Your task to perform on an android device: turn on translation in the chrome app Image 0: 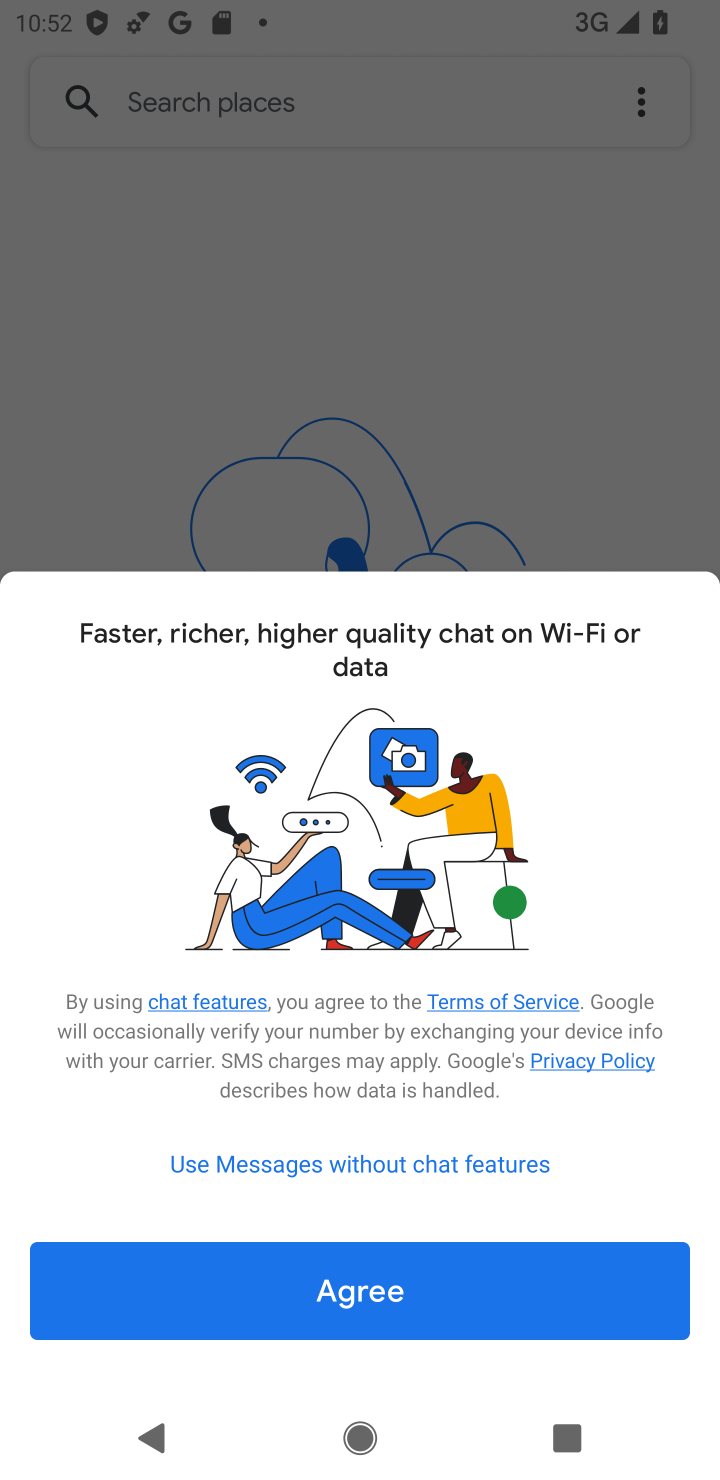
Step 0: press home button
Your task to perform on an android device: turn on translation in the chrome app Image 1: 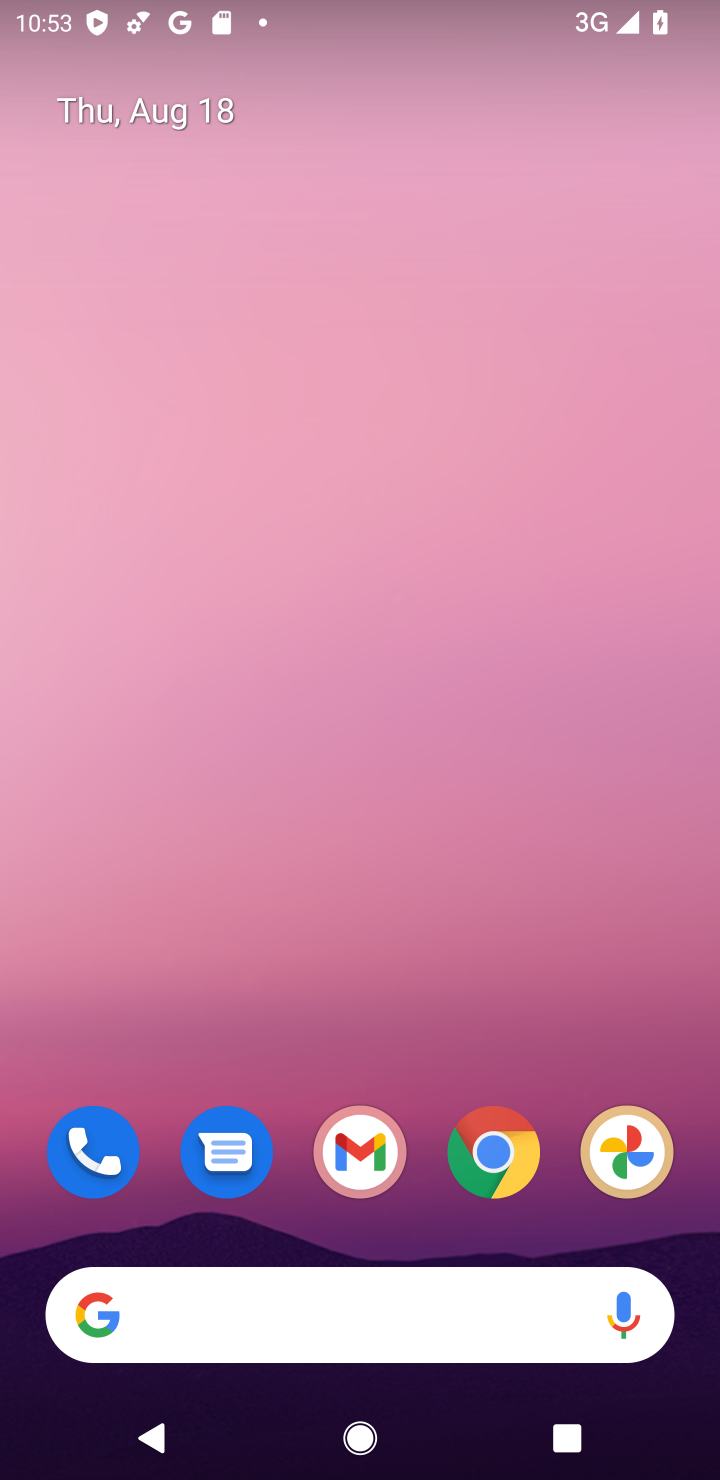
Step 1: drag from (432, 1196) to (361, 197)
Your task to perform on an android device: turn on translation in the chrome app Image 2: 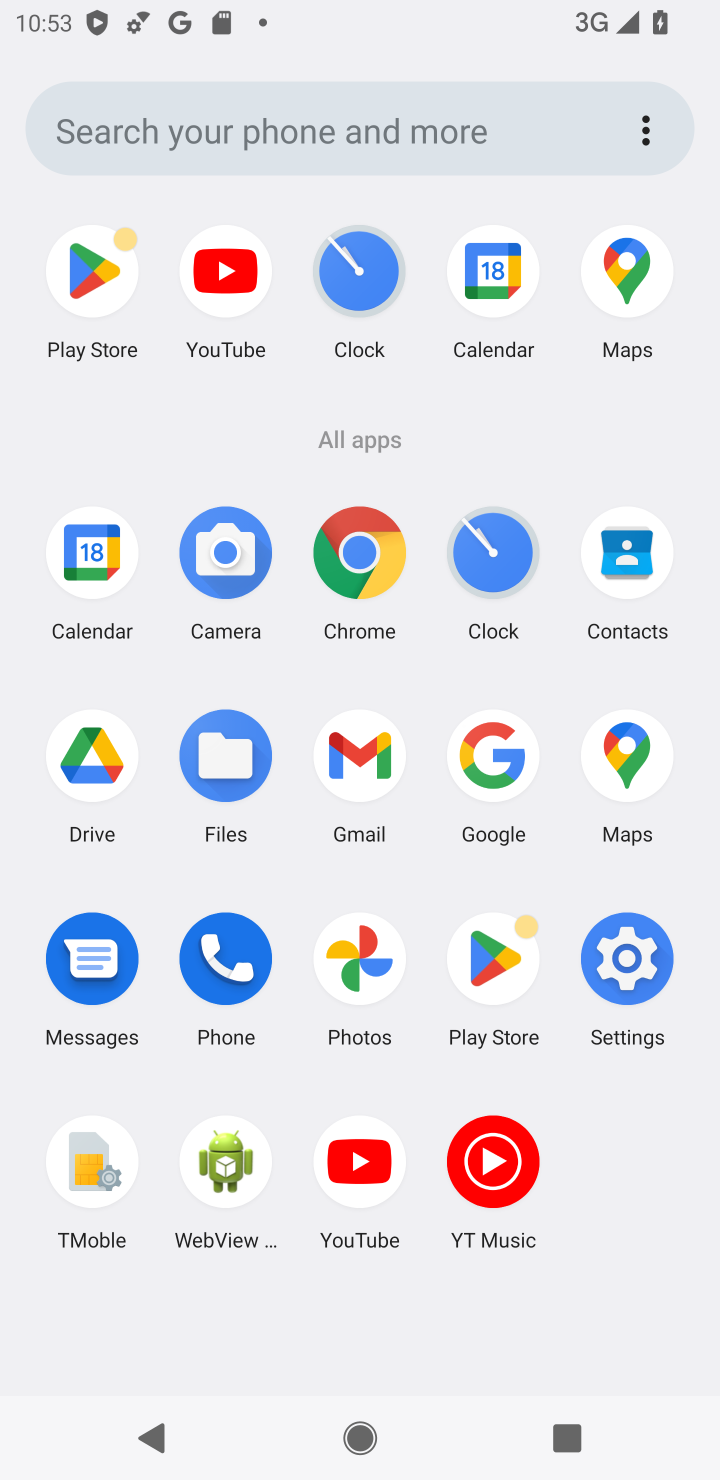
Step 2: click (355, 532)
Your task to perform on an android device: turn on translation in the chrome app Image 3: 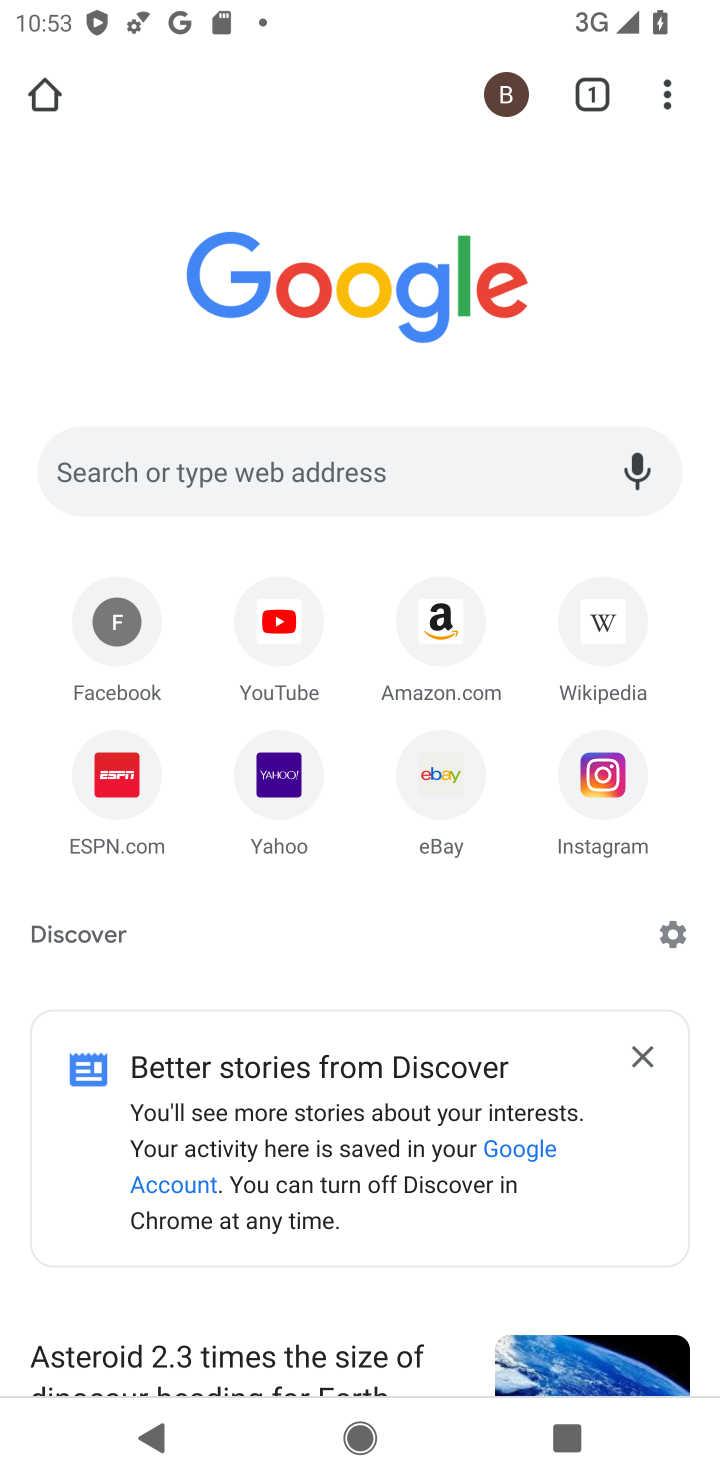
Step 3: drag from (671, 101) to (375, 878)
Your task to perform on an android device: turn on translation in the chrome app Image 4: 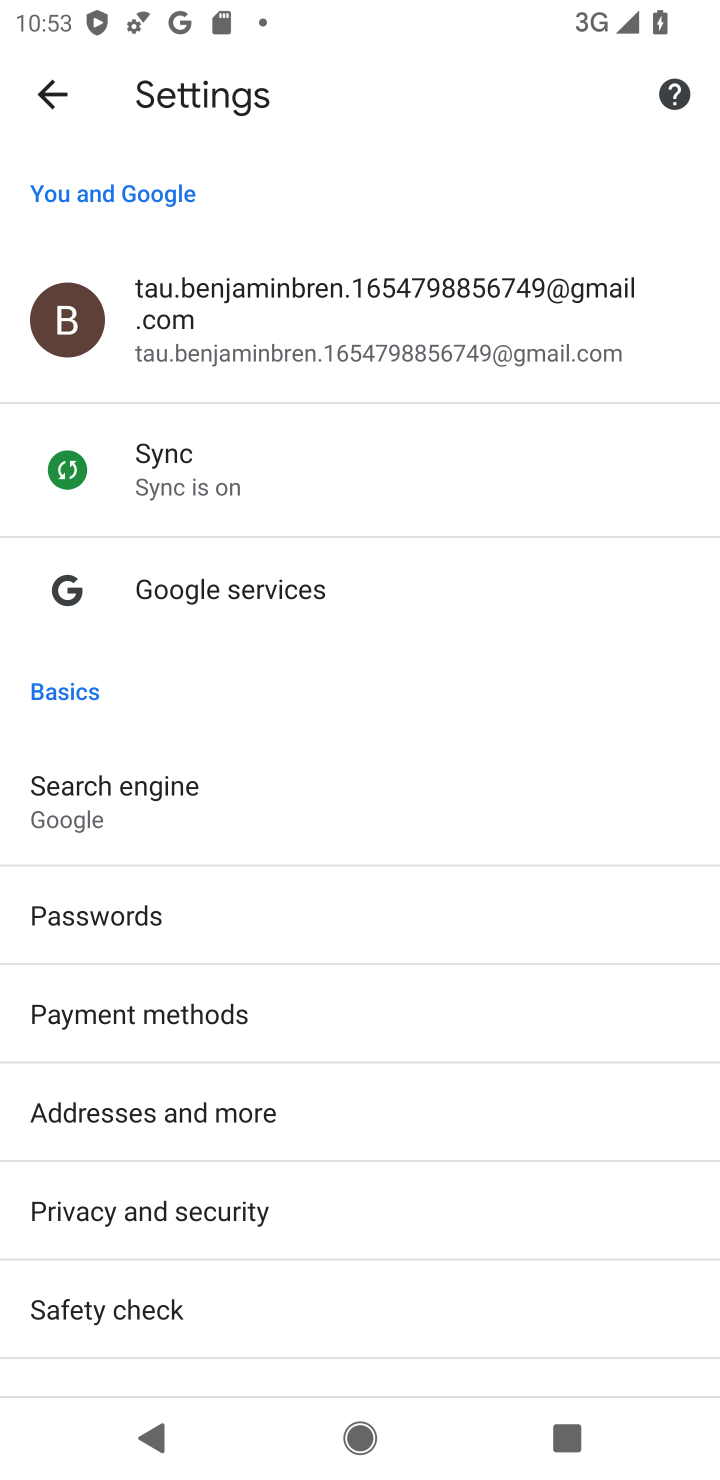
Step 4: drag from (443, 1190) to (414, 278)
Your task to perform on an android device: turn on translation in the chrome app Image 5: 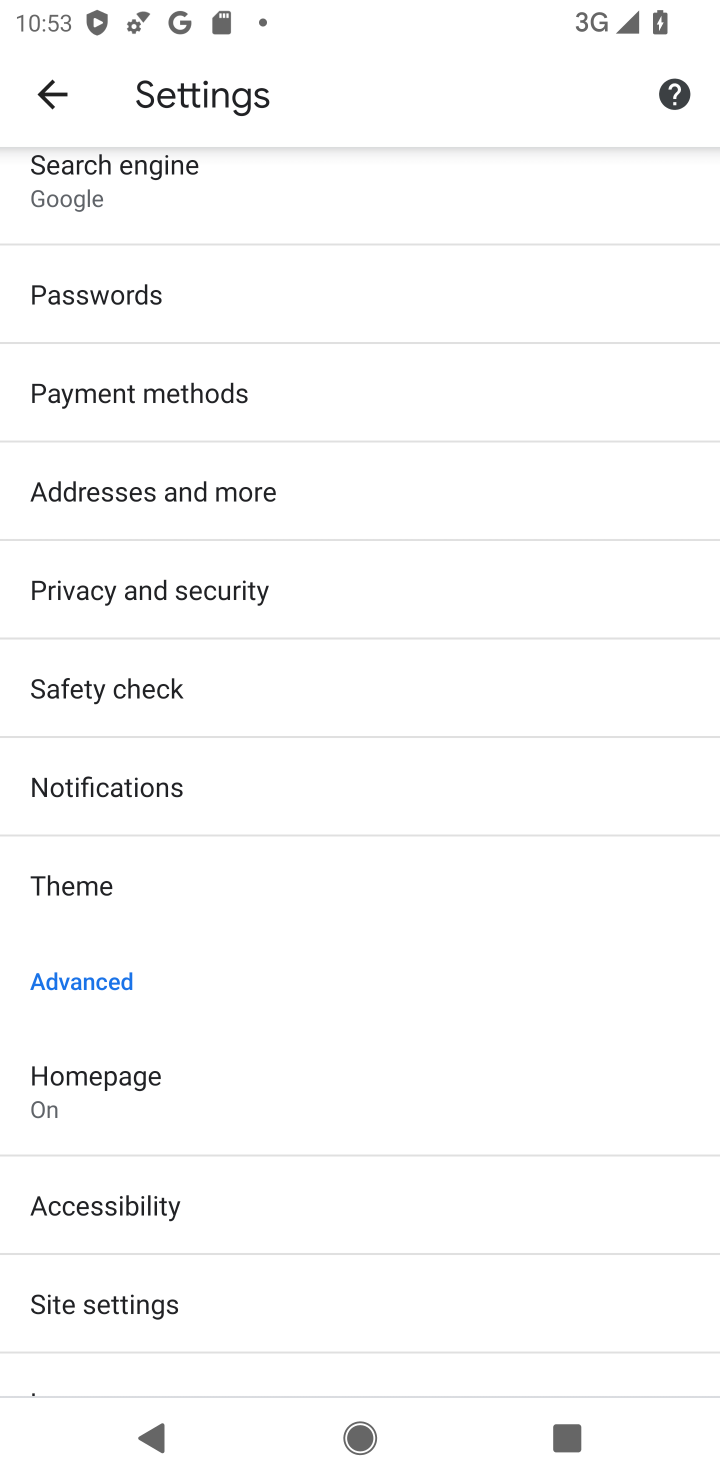
Step 5: drag from (285, 1284) to (444, 279)
Your task to perform on an android device: turn on translation in the chrome app Image 6: 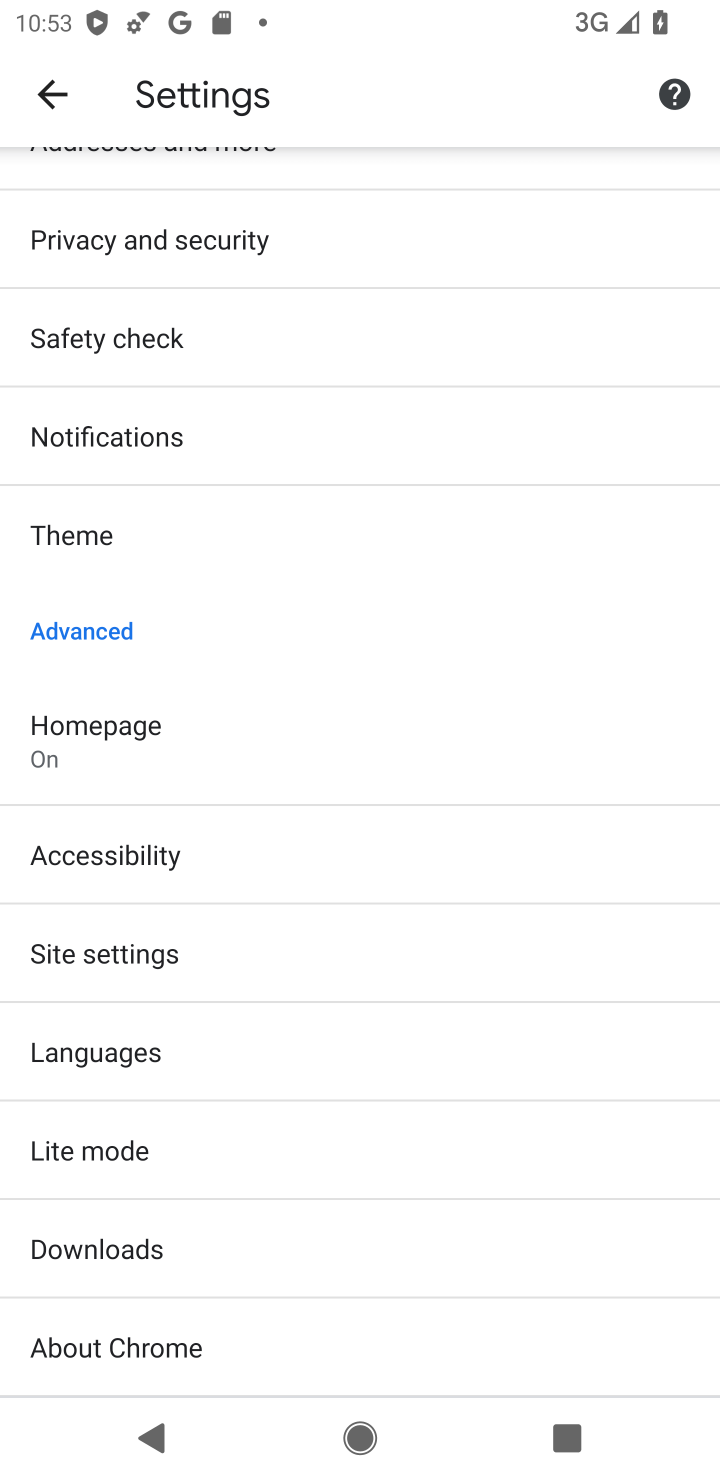
Step 6: click (125, 1052)
Your task to perform on an android device: turn on translation in the chrome app Image 7: 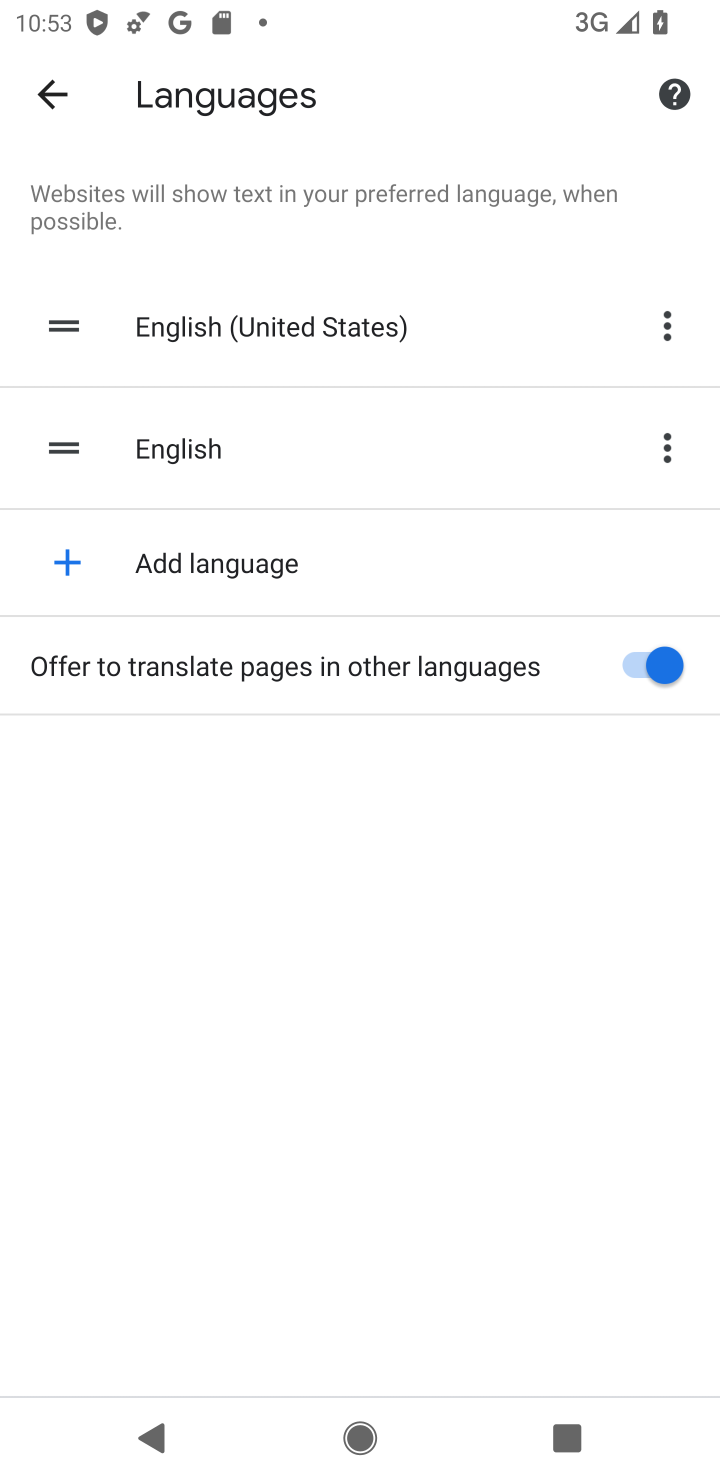
Step 7: task complete